Your task to perform on an android device: Open maps Image 0: 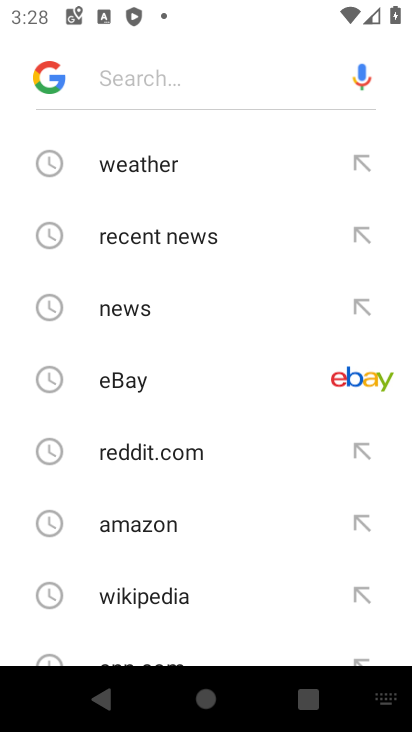
Step 0: press back button
Your task to perform on an android device: Open maps Image 1: 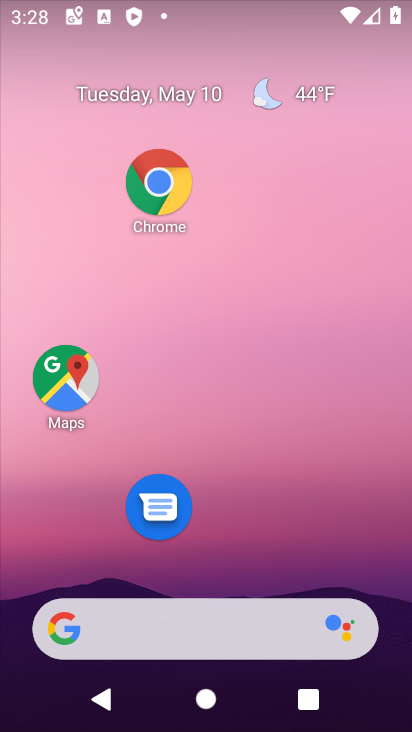
Step 1: click (59, 390)
Your task to perform on an android device: Open maps Image 2: 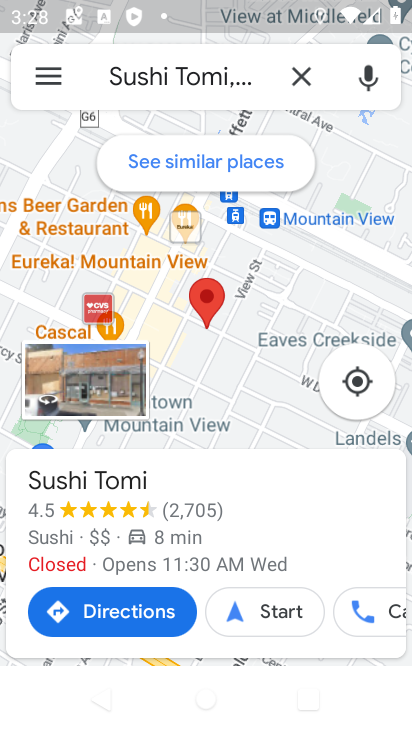
Step 2: task complete